Your task to perform on an android device: turn pop-ups on in chrome Image 0: 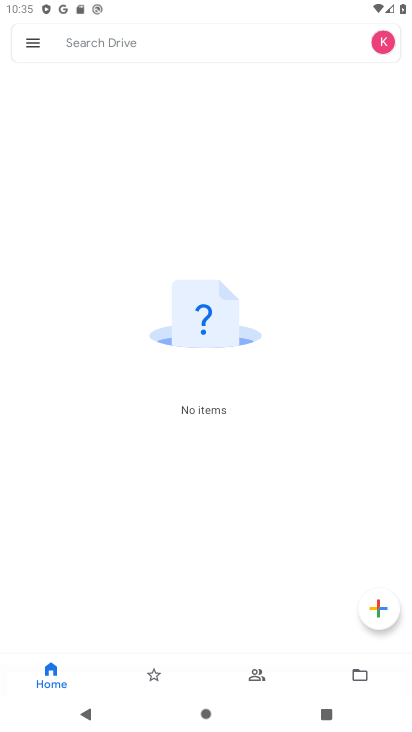
Step 0: press home button
Your task to perform on an android device: turn pop-ups on in chrome Image 1: 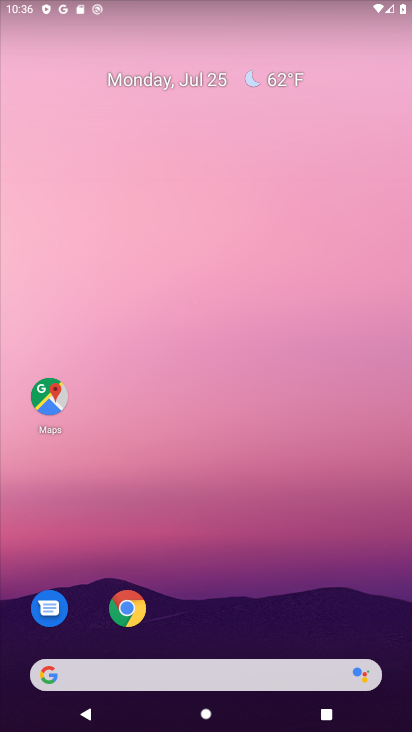
Step 1: click (132, 625)
Your task to perform on an android device: turn pop-ups on in chrome Image 2: 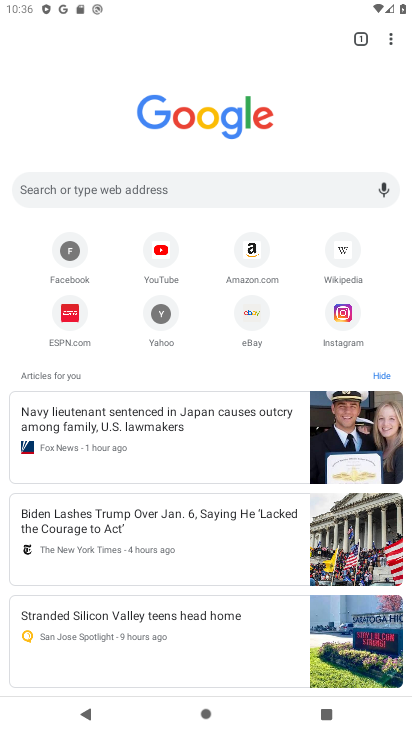
Step 2: click (393, 44)
Your task to perform on an android device: turn pop-ups on in chrome Image 3: 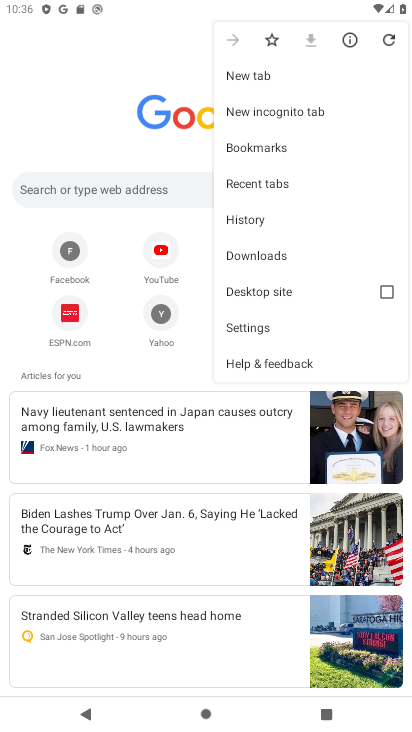
Step 3: click (251, 330)
Your task to perform on an android device: turn pop-ups on in chrome Image 4: 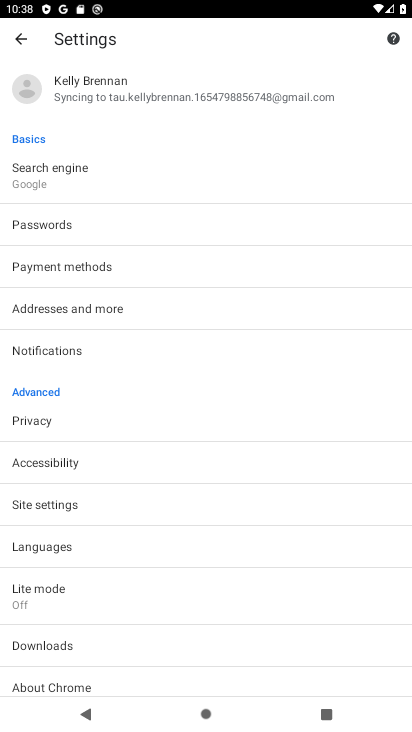
Step 4: press home button
Your task to perform on an android device: turn pop-ups on in chrome Image 5: 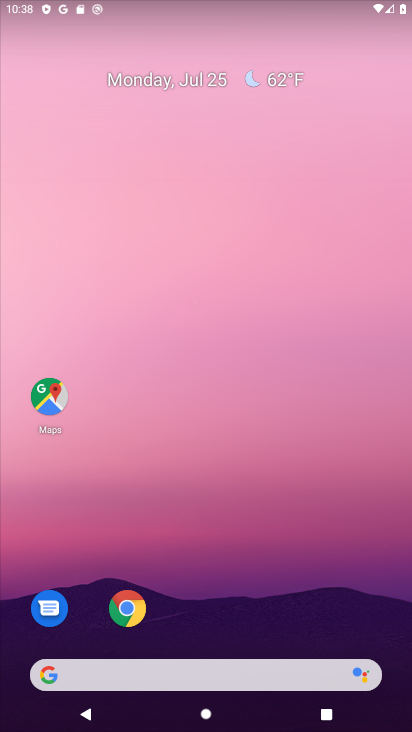
Step 5: drag from (226, 582) to (210, 209)
Your task to perform on an android device: turn pop-ups on in chrome Image 6: 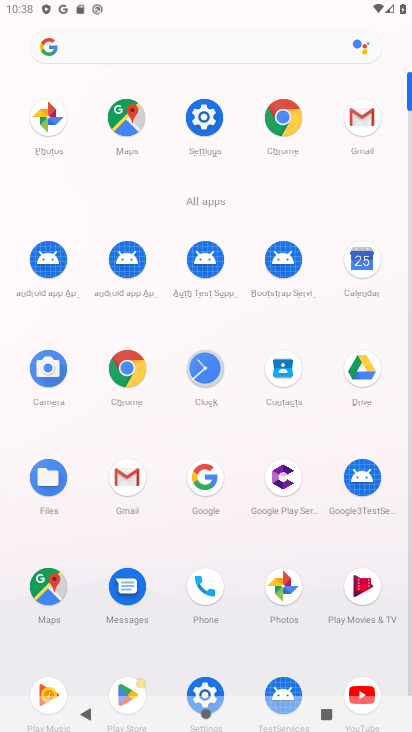
Step 6: click (130, 374)
Your task to perform on an android device: turn pop-ups on in chrome Image 7: 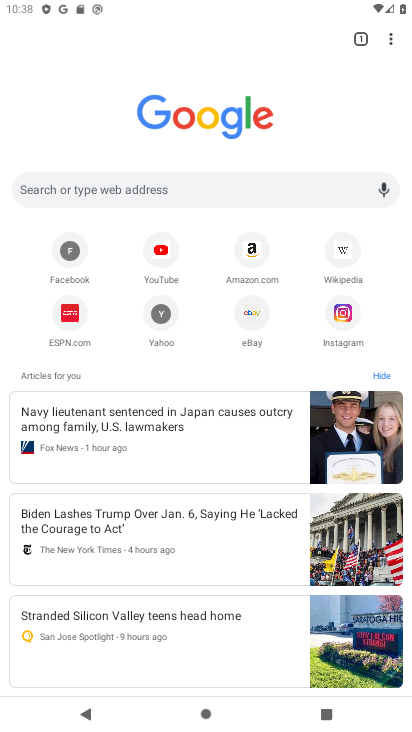
Step 7: click (386, 37)
Your task to perform on an android device: turn pop-ups on in chrome Image 8: 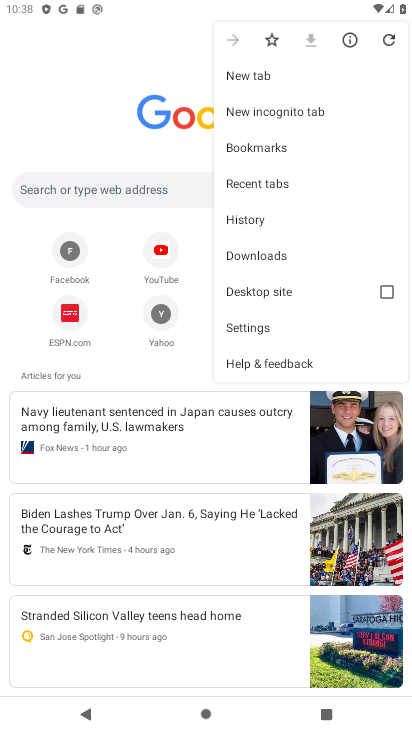
Step 8: click (274, 333)
Your task to perform on an android device: turn pop-ups on in chrome Image 9: 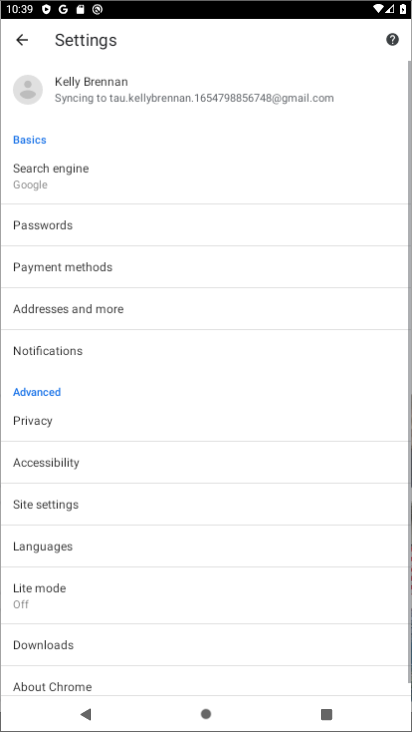
Step 9: click (274, 333)
Your task to perform on an android device: turn pop-ups on in chrome Image 10: 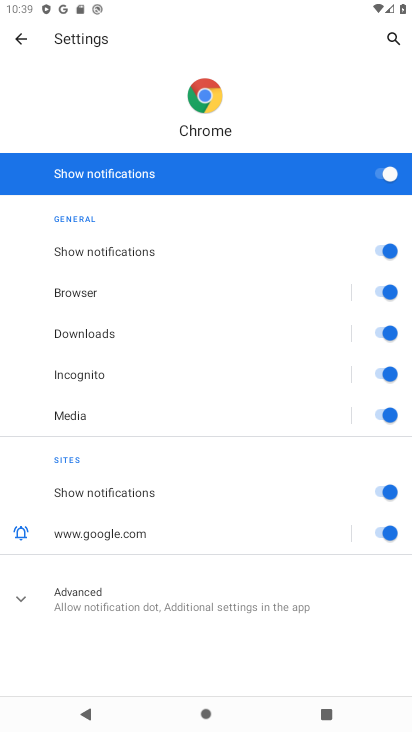
Step 10: click (17, 38)
Your task to perform on an android device: turn pop-ups on in chrome Image 11: 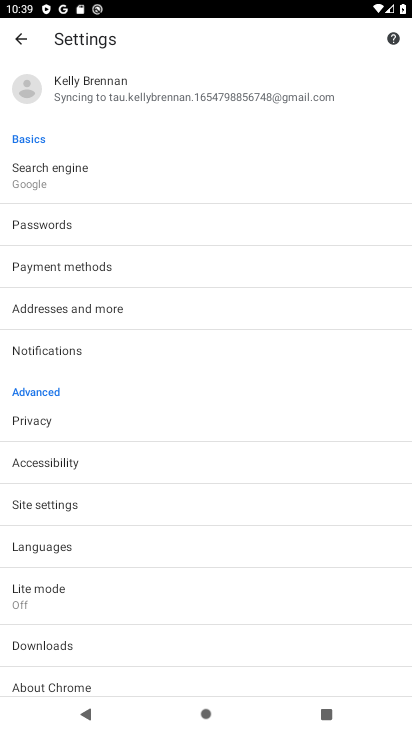
Step 11: task complete